Your task to perform on an android device: Go to settings Image 0: 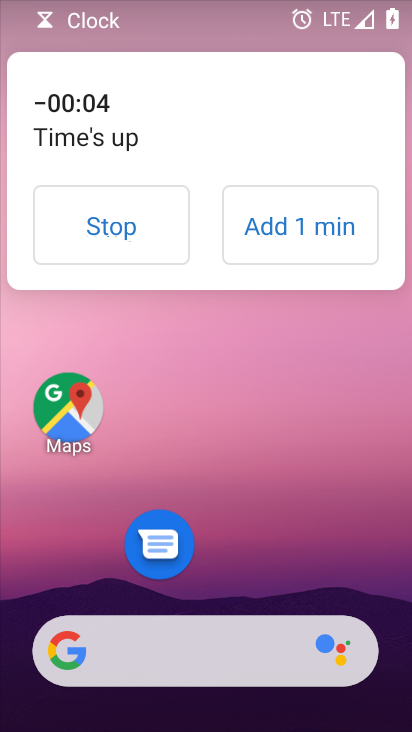
Step 0: press home button
Your task to perform on an android device: Go to settings Image 1: 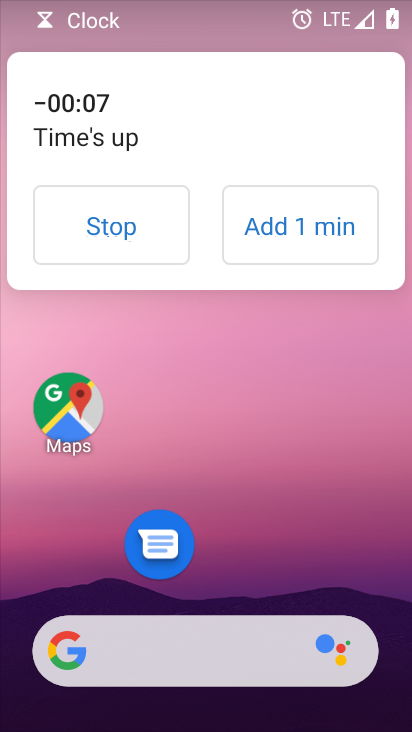
Step 1: click (121, 221)
Your task to perform on an android device: Go to settings Image 2: 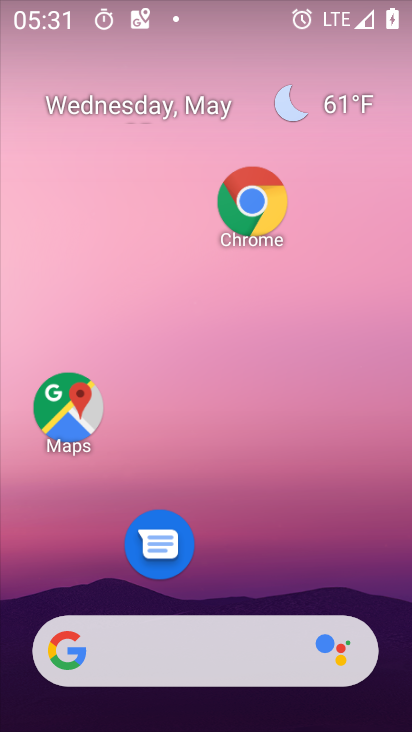
Step 2: drag from (200, 622) to (190, 297)
Your task to perform on an android device: Go to settings Image 3: 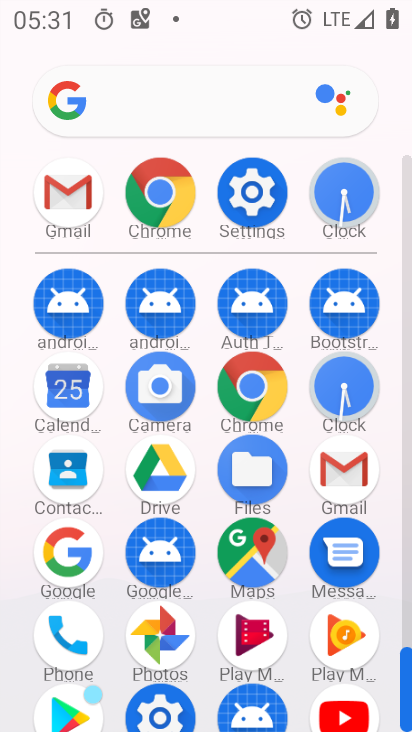
Step 3: click (248, 201)
Your task to perform on an android device: Go to settings Image 4: 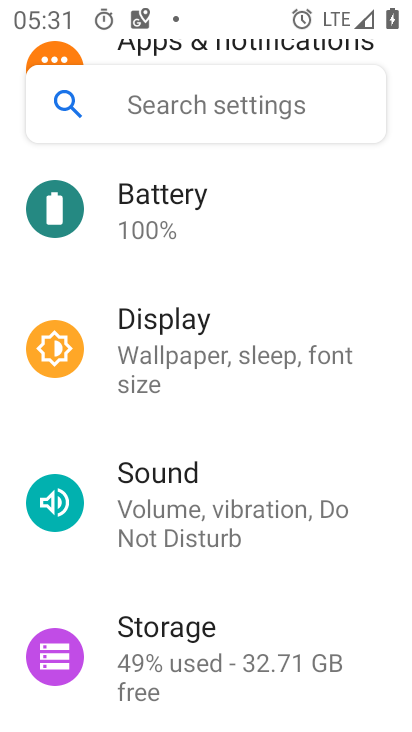
Step 4: task complete